Your task to perform on an android device: toggle javascript in the chrome app Image 0: 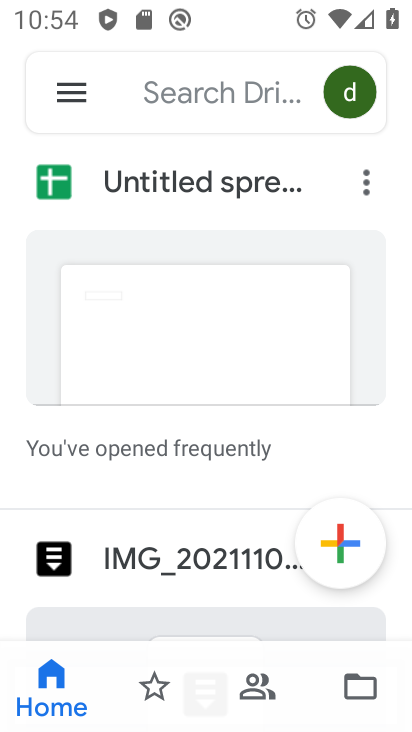
Step 0: press home button
Your task to perform on an android device: toggle javascript in the chrome app Image 1: 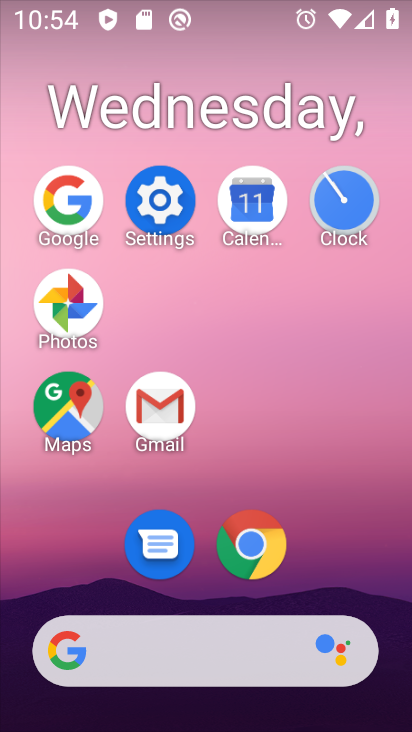
Step 1: click (243, 542)
Your task to perform on an android device: toggle javascript in the chrome app Image 2: 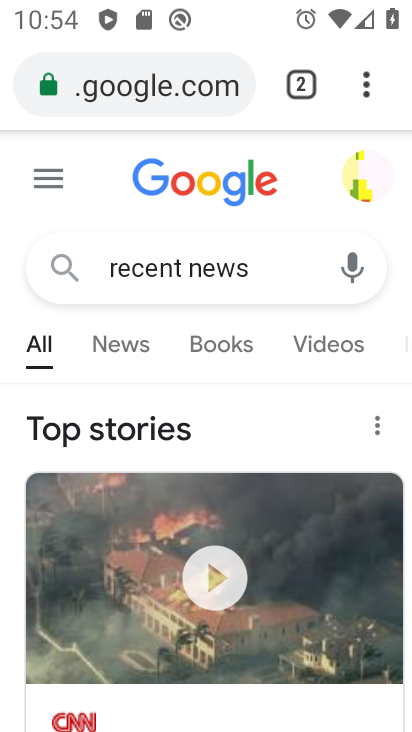
Step 2: click (379, 77)
Your task to perform on an android device: toggle javascript in the chrome app Image 3: 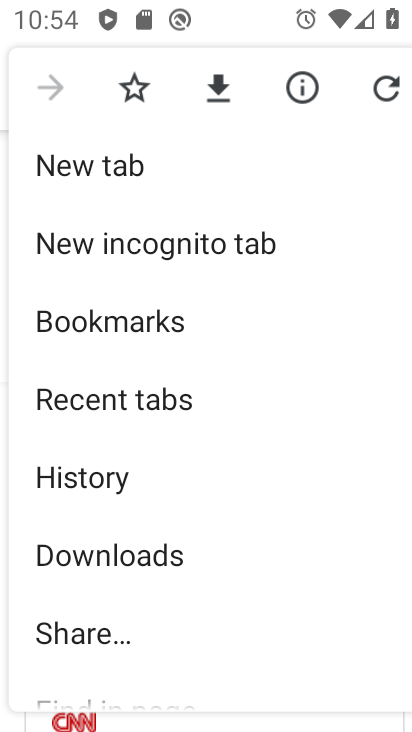
Step 3: drag from (278, 642) to (301, 270)
Your task to perform on an android device: toggle javascript in the chrome app Image 4: 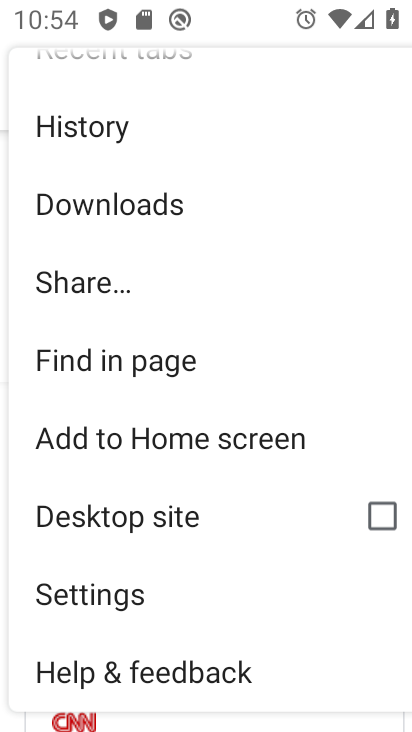
Step 4: click (199, 589)
Your task to perform on an android device: toggle javascript in the chrome app Image 5: 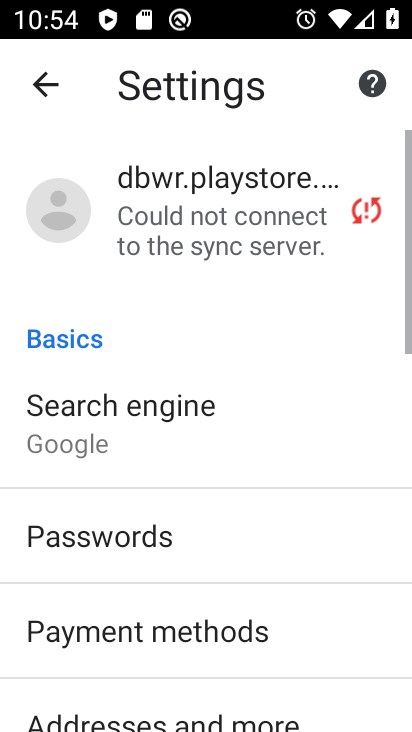
Step 5: drag from (199, 587) to (249, 179)
Your task to perform on an android device: toggle javascript in the chrome app Image 6: 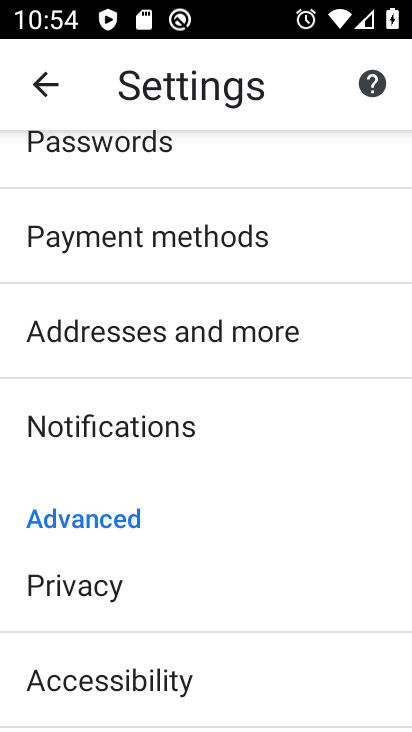
Step 6: drag from (234, 610) to (274, 230)
Your task to perform on an android device: toggle javascript in the chrome app Image 7: 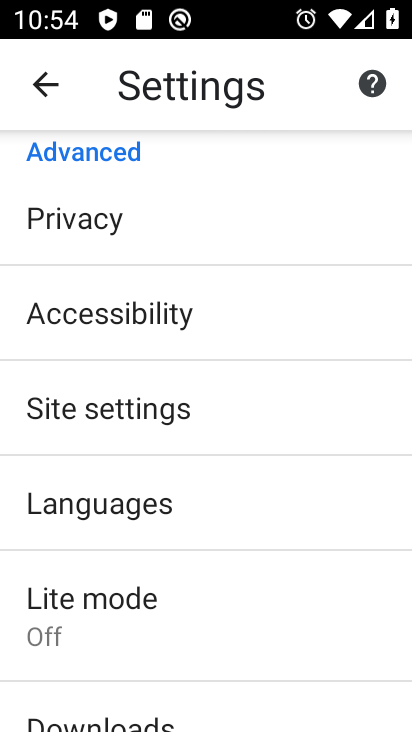
Step 7: click (204, 438)
Your task to perform on an android device: toggle javascript in the chrome app Image 8: 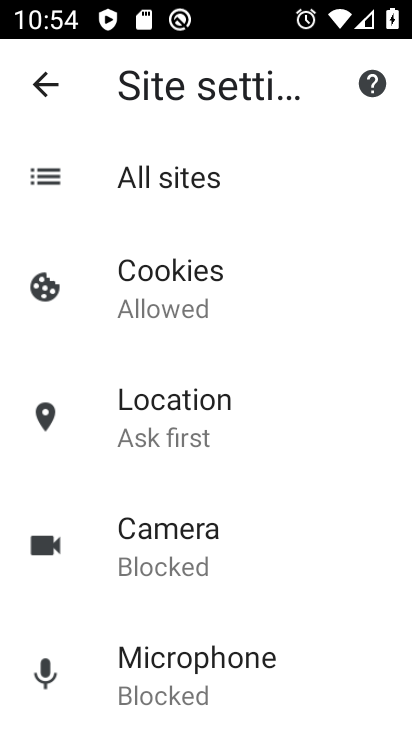
Step 8: drag from (283, 564) to (272, 191)
Your task to perform on an android device: toggle javascript in the chrome app Image 9: 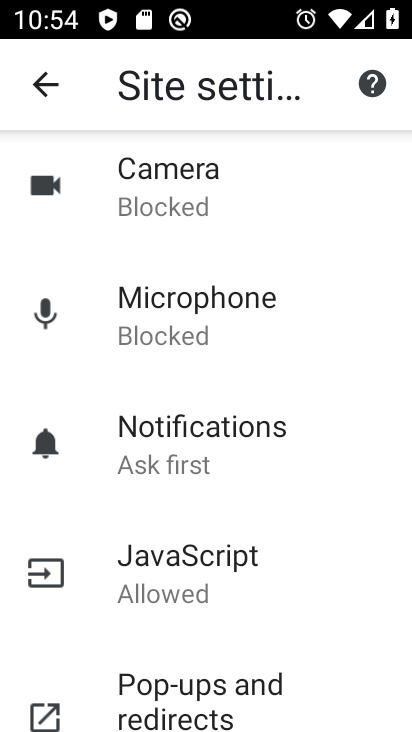
Step 9: click (242, 553)
Your task to perform on an android device: toggle javascript in the chrome app Image 10: 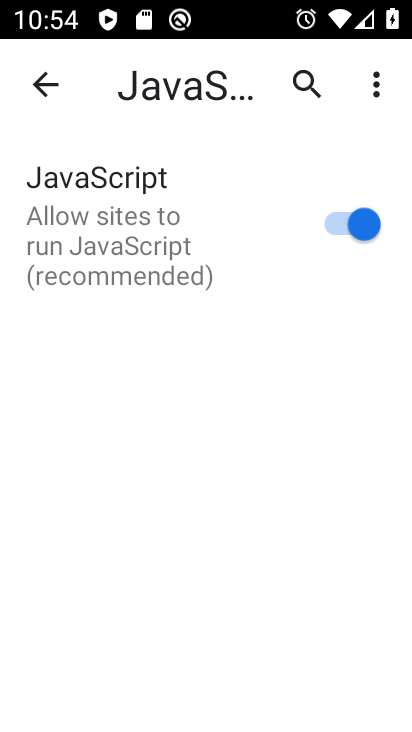
Step 10: click (327, 231)
Your task to perform on an android device: toggle javascript in the chrome app Image 11: 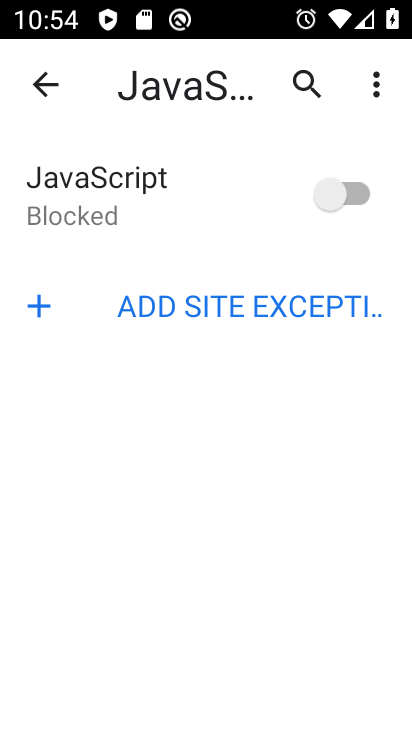
Step 11: task complete